Your task to perform on an android device: turn on the 12-hour format for clock Image 0: 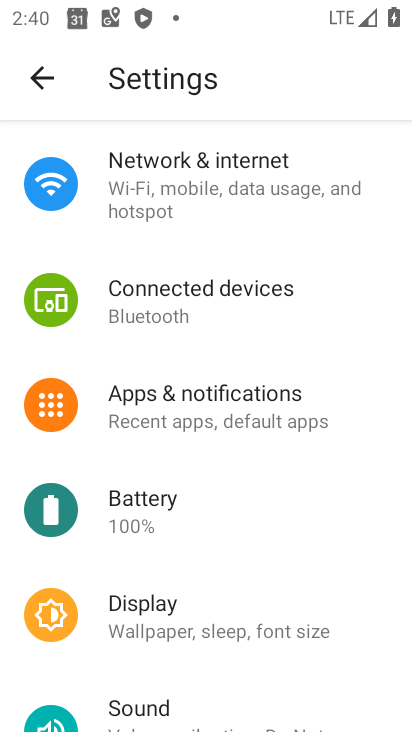
Step 0: press home button
Your task to perform on an android device: turn on the 12-hour format for clock Image 1: 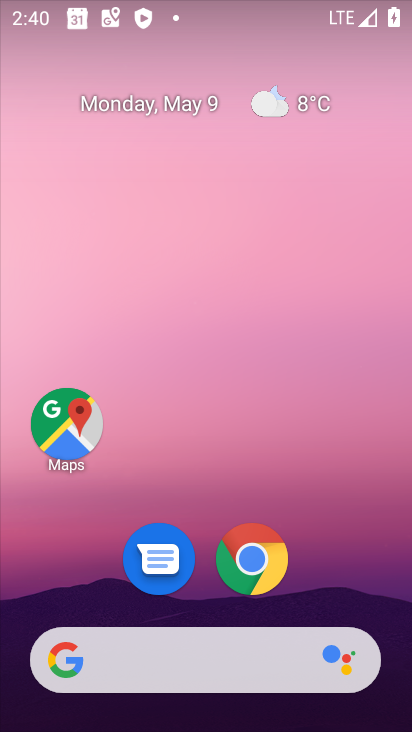
Step 1: drag from (338, 571) to (226, 134)
Your task to perform on an android device: turn on the 12-hour format for clock Image 2: 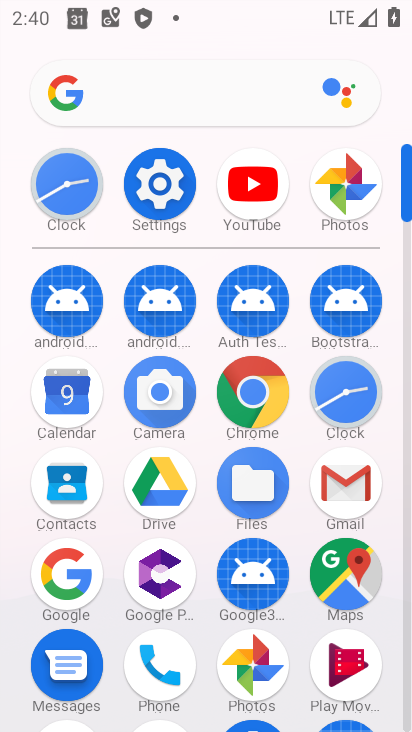
Step 2: click (349, 398)
Your task to perform on an android device: turn on the 12-hour format for clock Image 3: 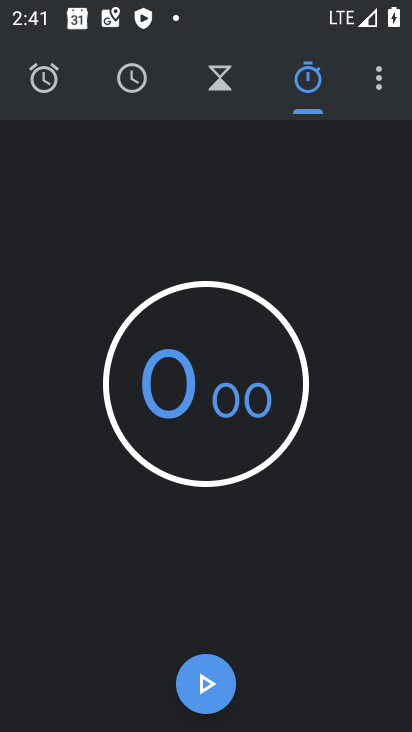
Step 3: click (377, 78)
Your task to perform on an android device: turn on the 12-hour format for clock Image 4: 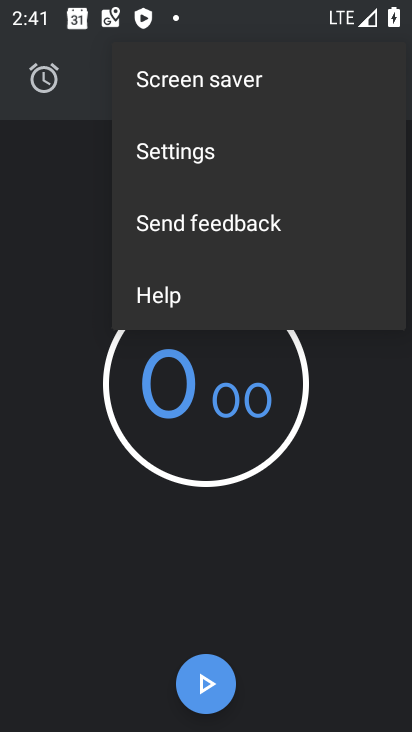
Step 4: click (180, 150)
Your task to perform on an android device: turn on the 12-hour format for clock Image 5: 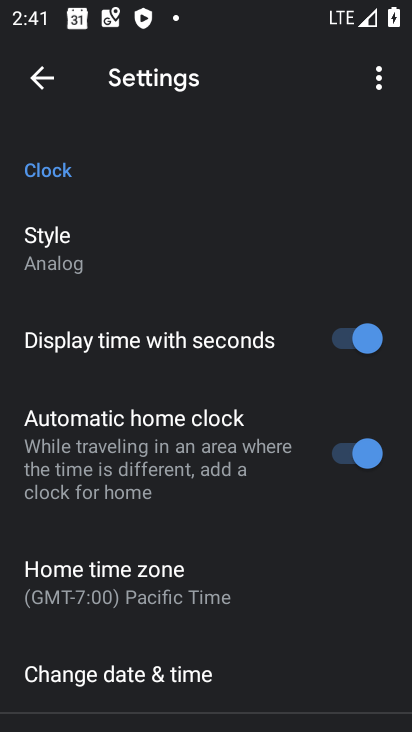
Step 5: drag from (239, 520) to (185, 260)
Your task to perform on an android device: turn on the 12-hour format for clock Image 6: 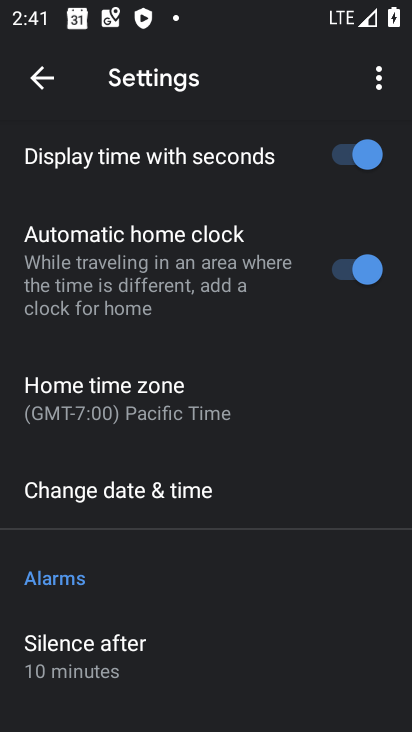
Step 6: click (137, 486)
Your task to perform on an android device: turn on the 12-hour format for clock Image 7: 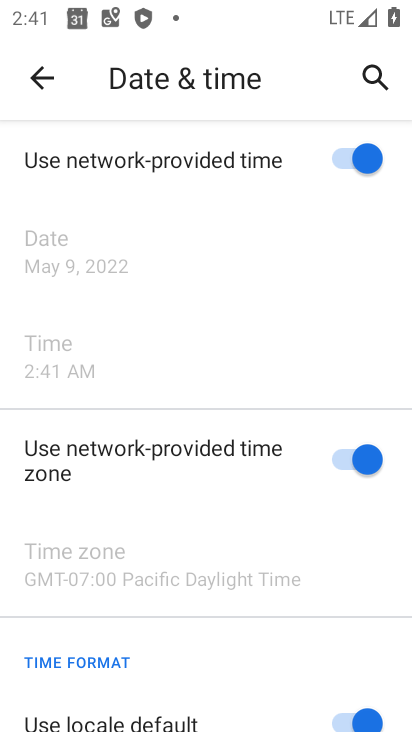
Step 7: task complete